Your task to perform on an android device: turn on notifications settings in the gmail app Image 0: 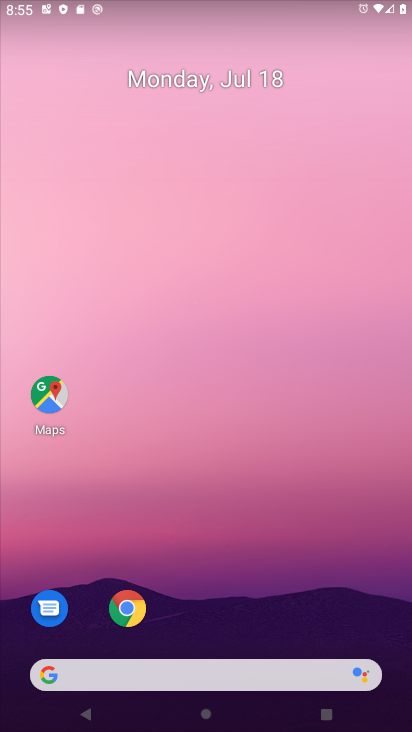
Step 0: drag from (249, 709) to (249, 227)
Your task to perform on an android device: turn on notifications settings in the gmail app Image 1: 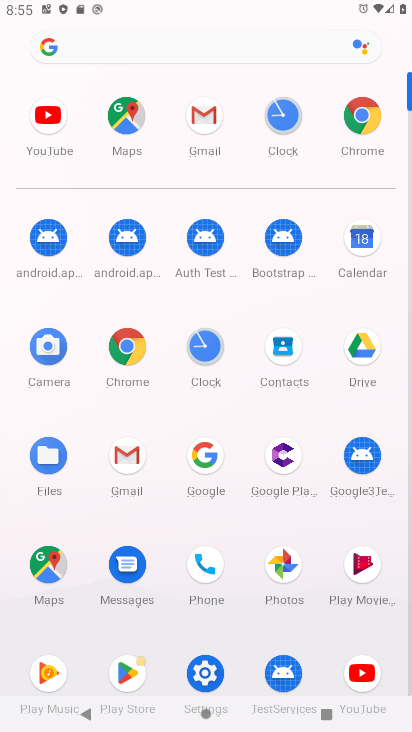
Step 1: click (130, 452)
Your task to perform on an android device: turn on notifications settings in the gmail app Image 2: 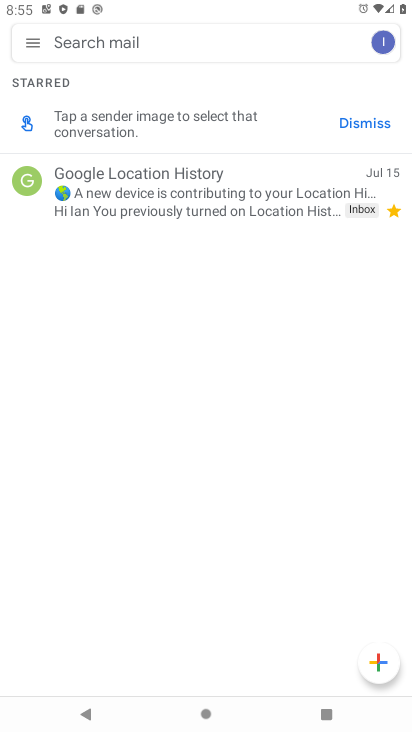
Step 2: click (30, 34)
Your task to perform on an android device: turn on notifications settings in the gmail app Image 3: 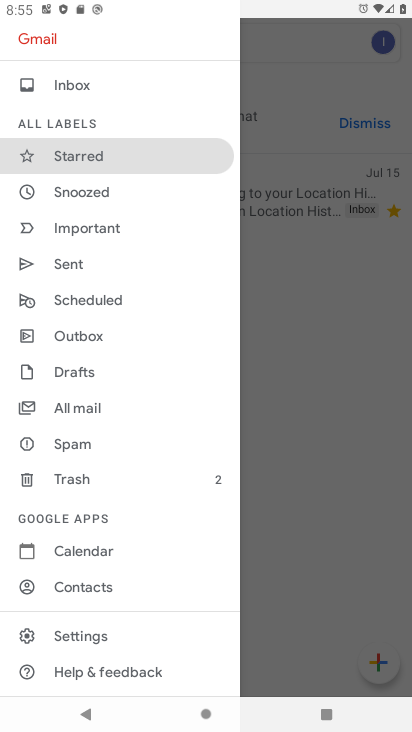
Step 3: click (72, 636)
Your task to perform on an android device: turn on notifications settings in the gmail app Image 4: 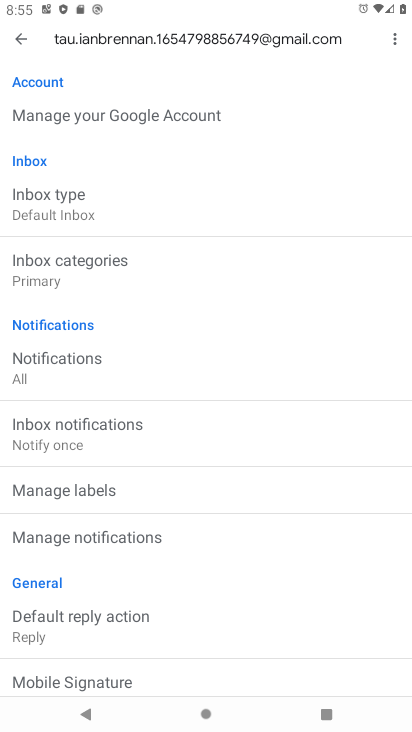
Step 4: task complete